Your task to perform on an android device: Is it going to rain tomorrow? Image 0: 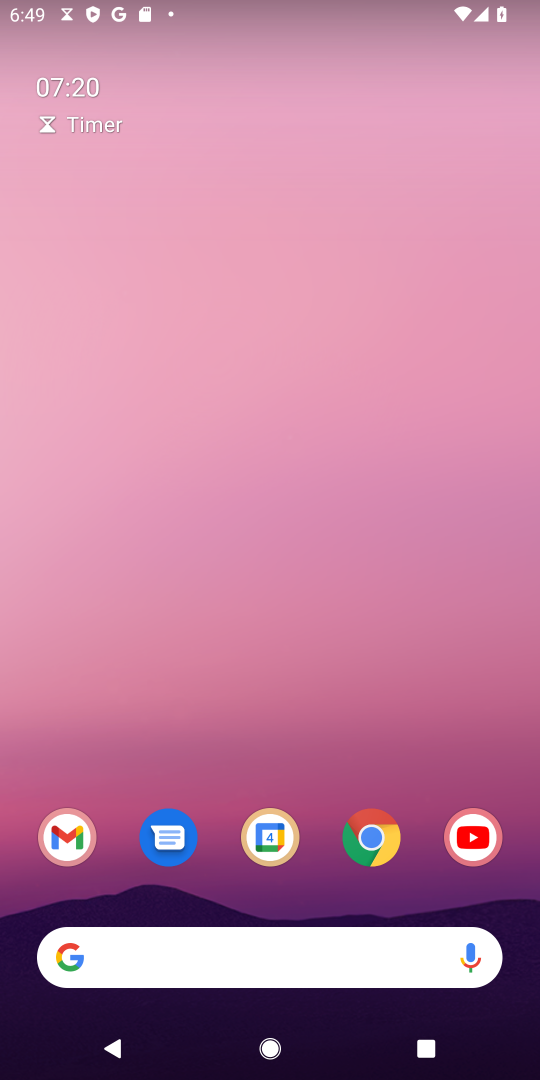
Step 0: press home button
Your task to perform on an android device: Is it going to rain tomorrow? Image 1: 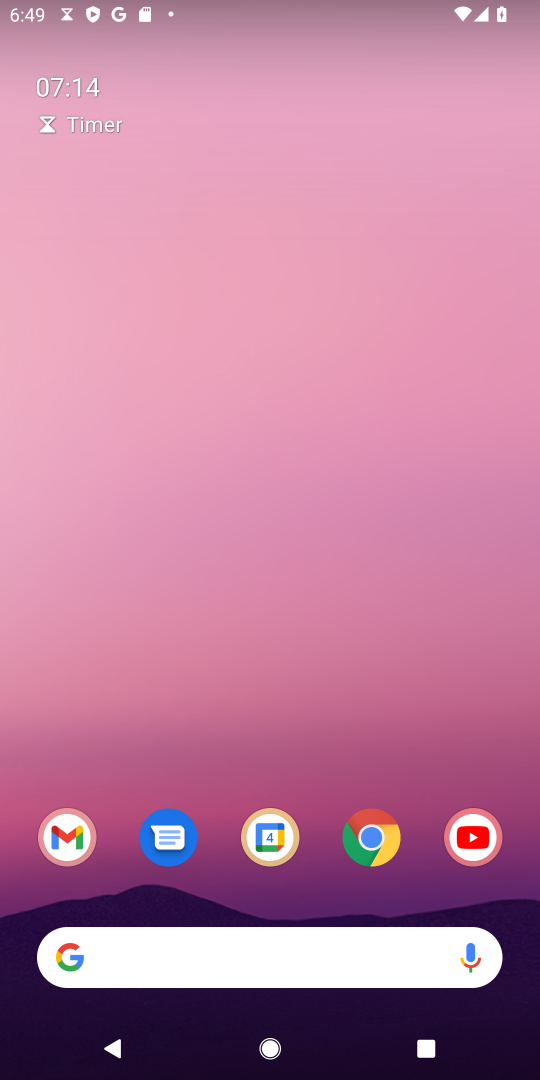
Step 1: drag from (318, 798) to (358, 37)
Your task to perform on an android device: Is it going to rain tomorrow? Image 2: 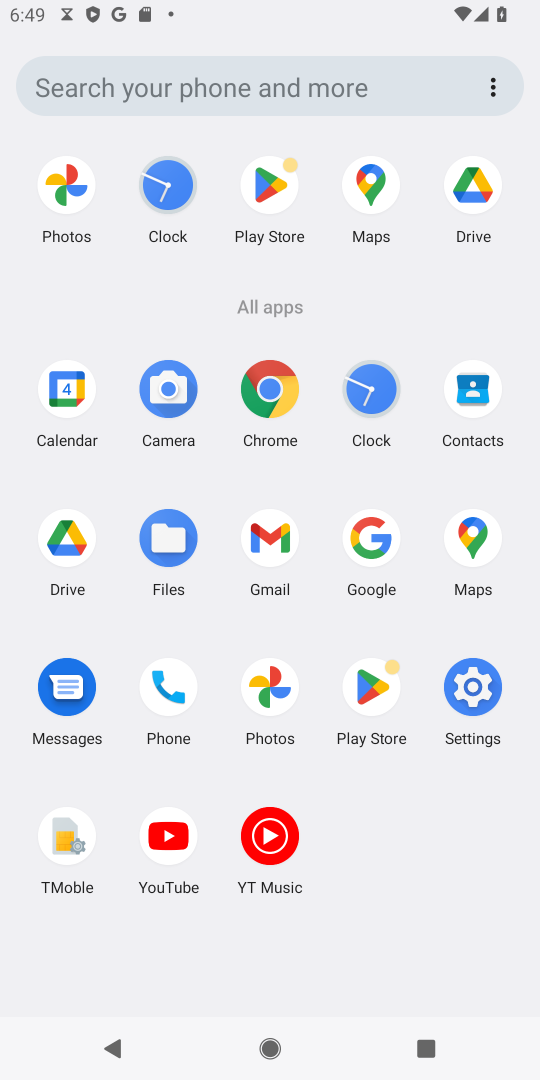
Step 2: press back button
Your task to perform on an android device: Is it going to rain tomorrow? Image 3: 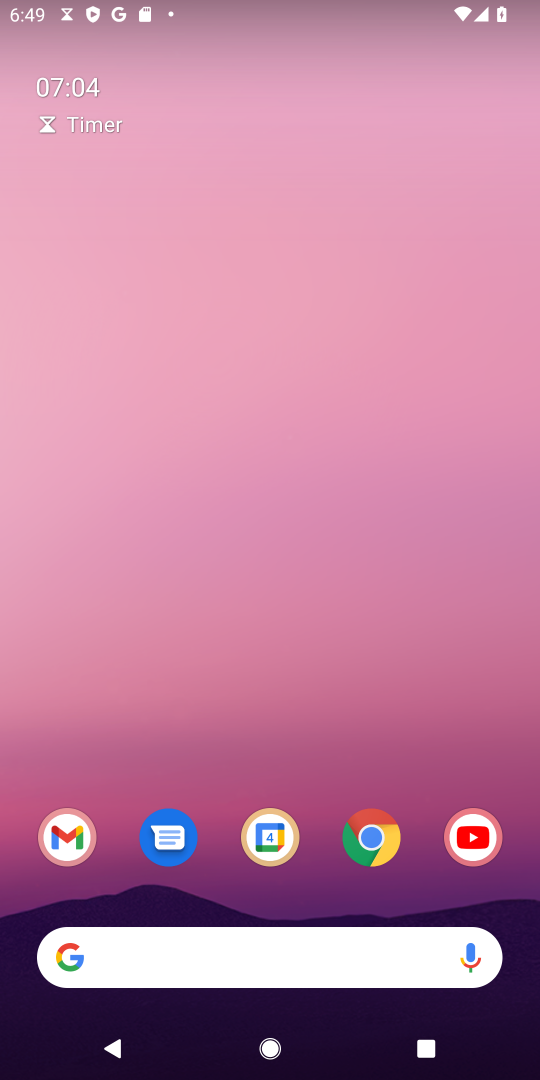
Step 3: click (214, 957)
Your task to perform on an android device: Is it going to rain tomorrow? Image 4: 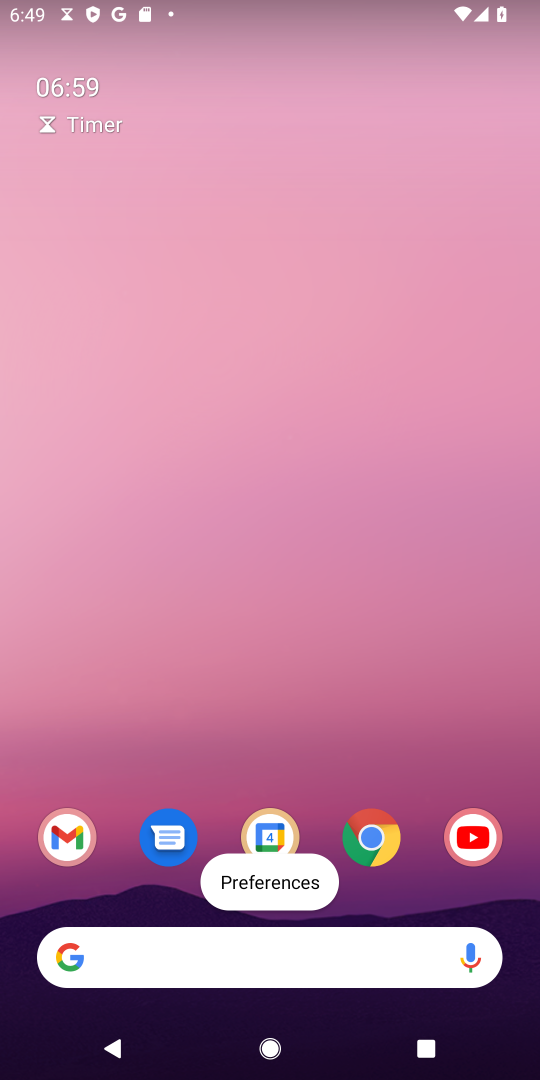
Step 4: click (204, 953)
Your task to perform on an android device: Is it going to rain tomorrow? Image 5: 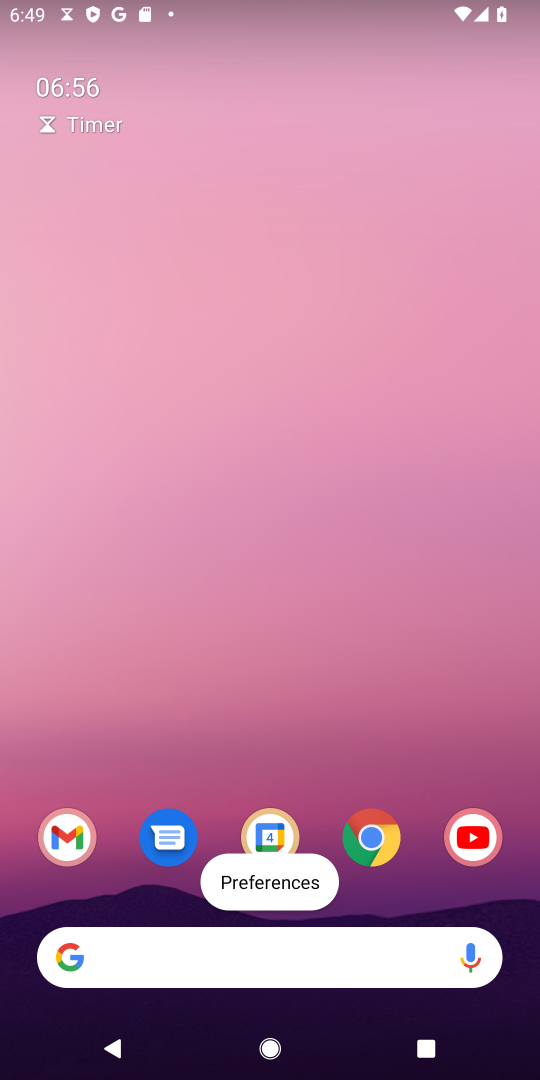
Step 5: click (218, 960)
Your task to perform on an android device: Is it going to rain tomorrow? Image 6: 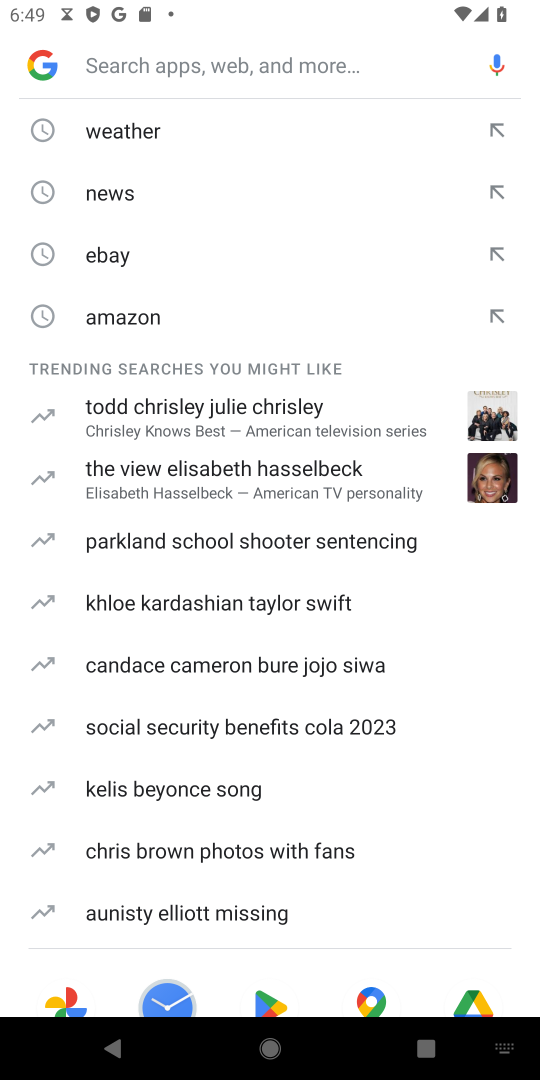
Step 6: click (151, 117)
Your task to perform on an android device: Is it going to rain tomorrow? Image 7: 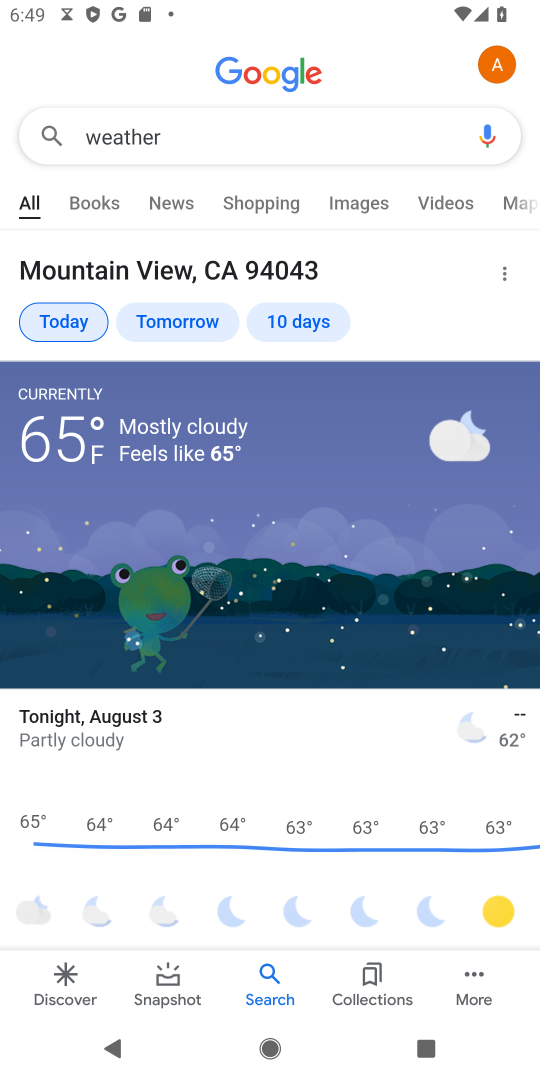
Step 7: click (166, 316)
Your task to perform on an android device: Is it going to rain tomorrow? Image 8: 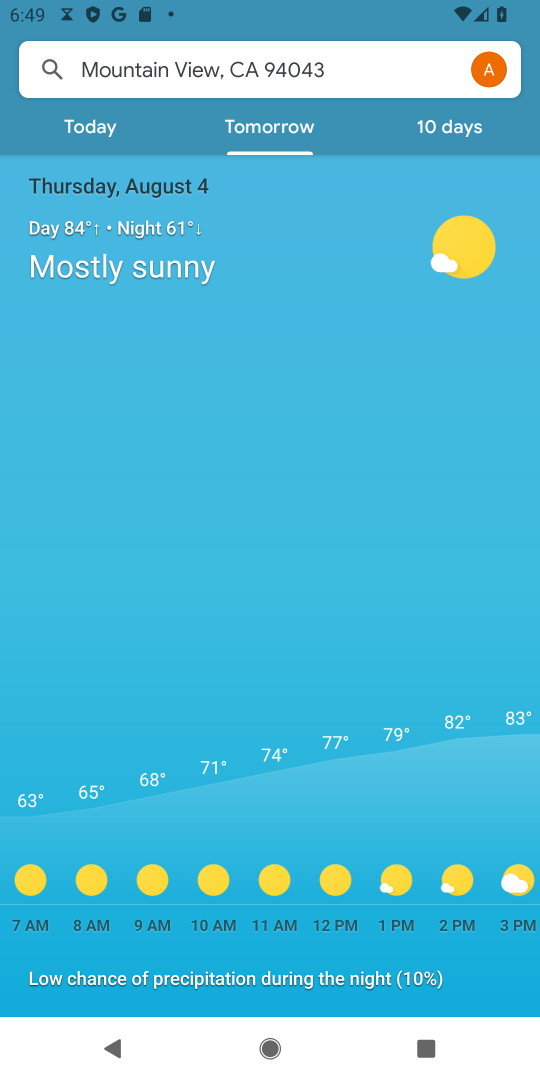
Step 8: task complete